Your task to perform on an android device: open device folders in google photos Image 0: 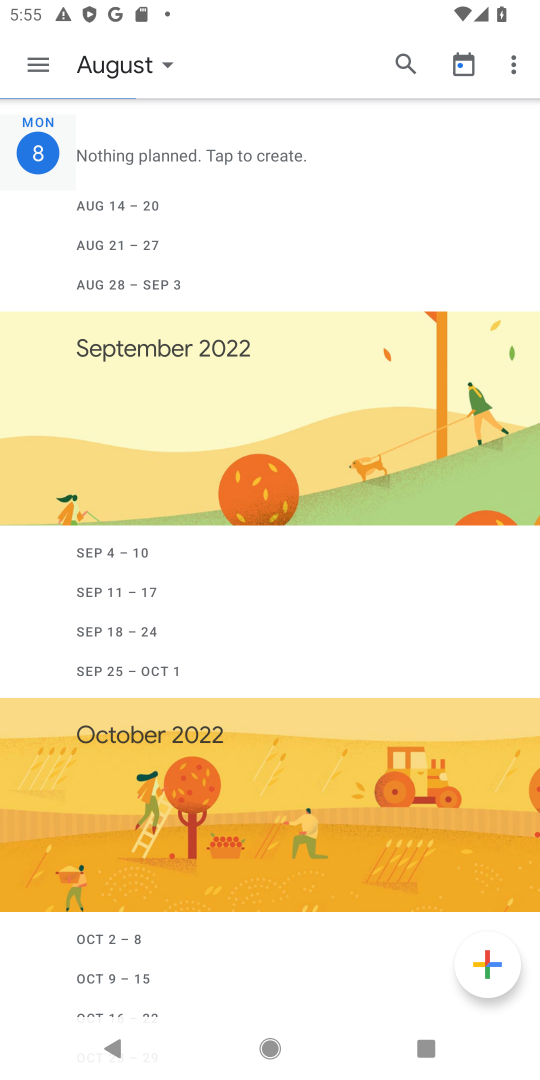
Step 0: press home button
Your task to perform on an android device: open device folders in google photos Image 1: 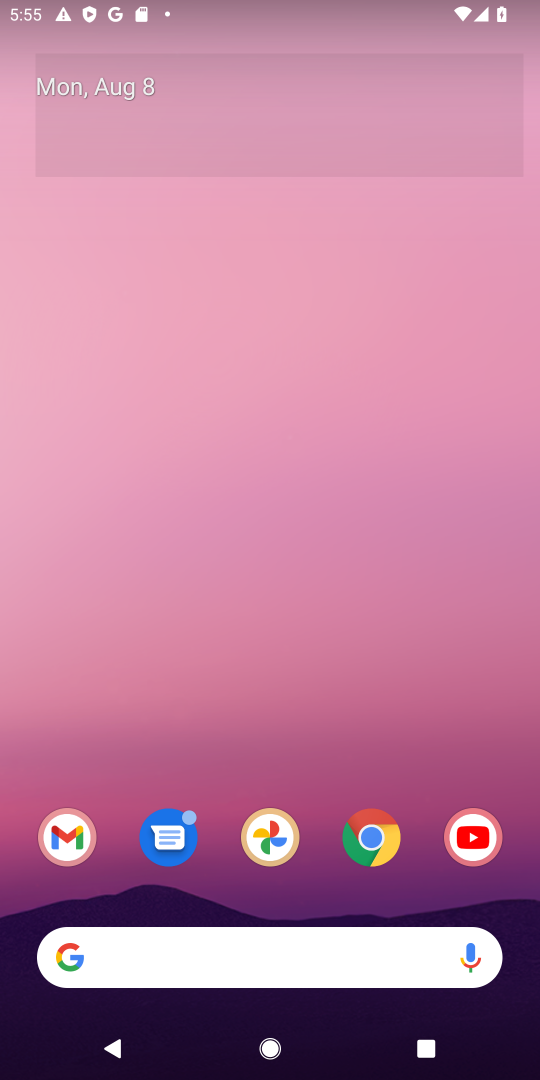
Step 1: drag from (353, 912) to (503, 1)
Your task to perform on an android device: open device folders in google photos Image 2: 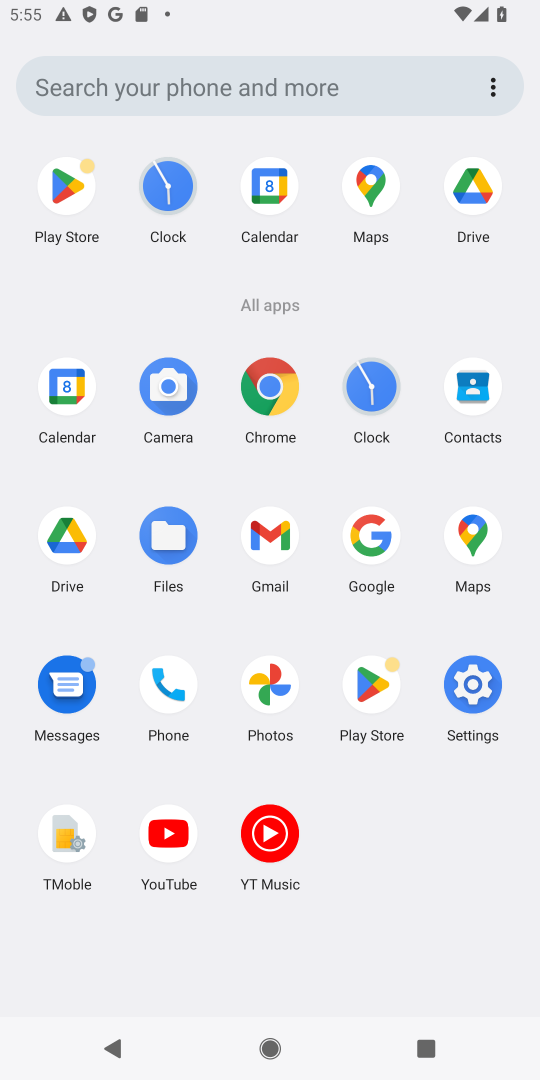
Step 2: click (287, 665)
Your task to perform on an android device: open device folders in google photos Image 3: 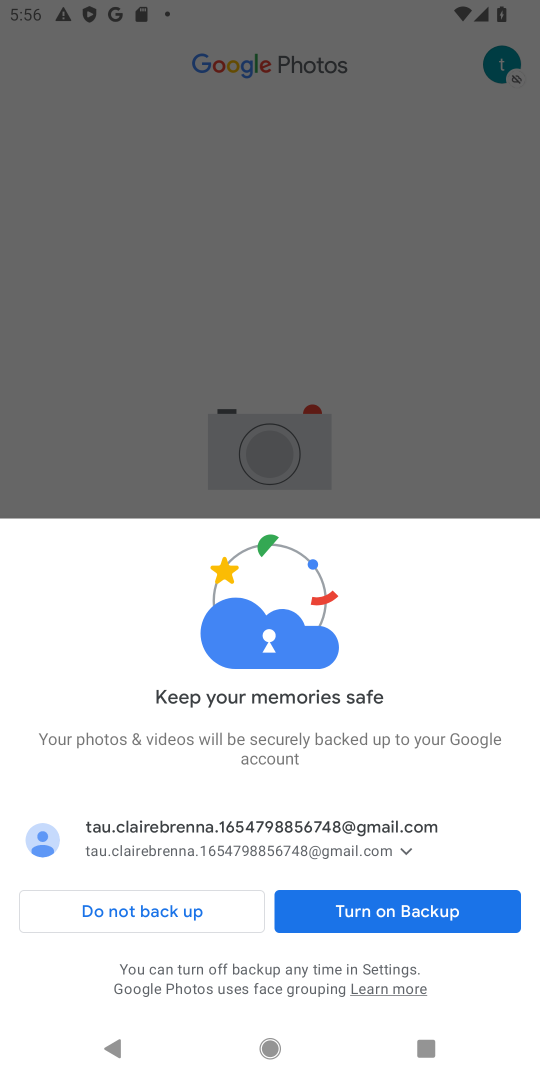
Step 3: click (445, 913)
Your task to perform on an android device: open device folders in google photos Image 4: 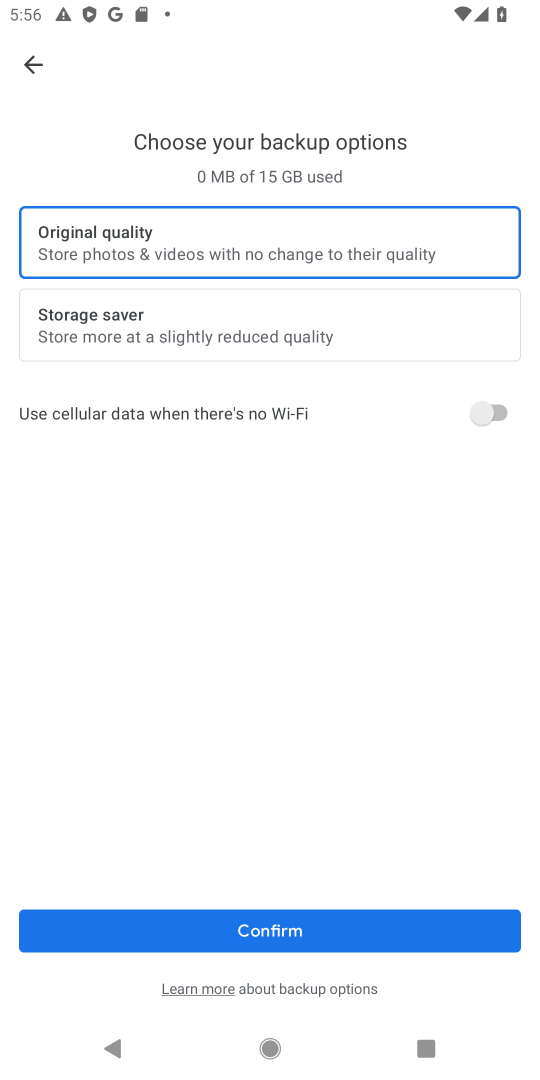
Step 4: click (443, 915)
Your task to perform on an android device: open device folders in google photos Image 5: 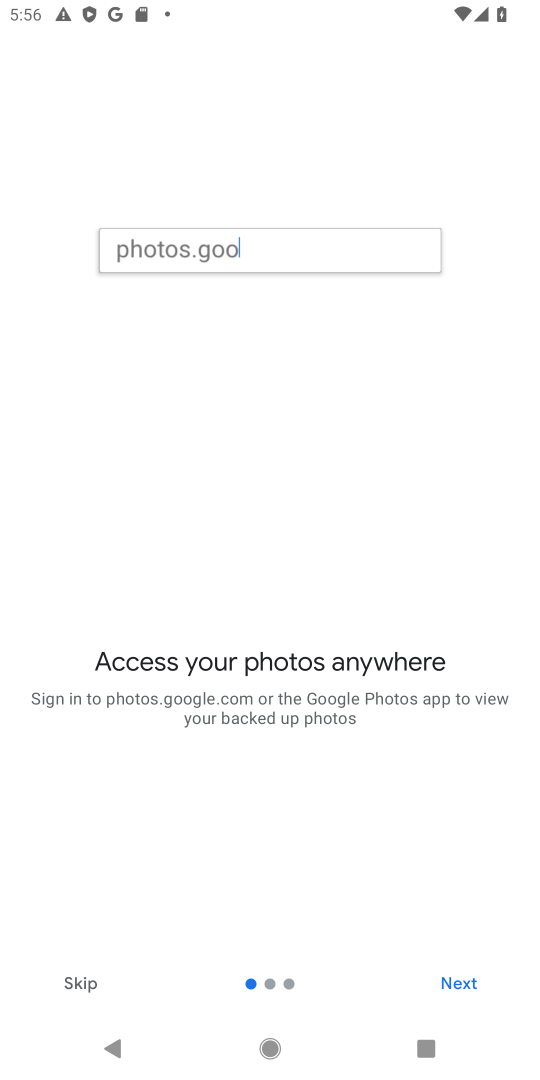
Step 5: click (479, 1004)
Your task to perform on an android device: open device folders in google photos Image 6: 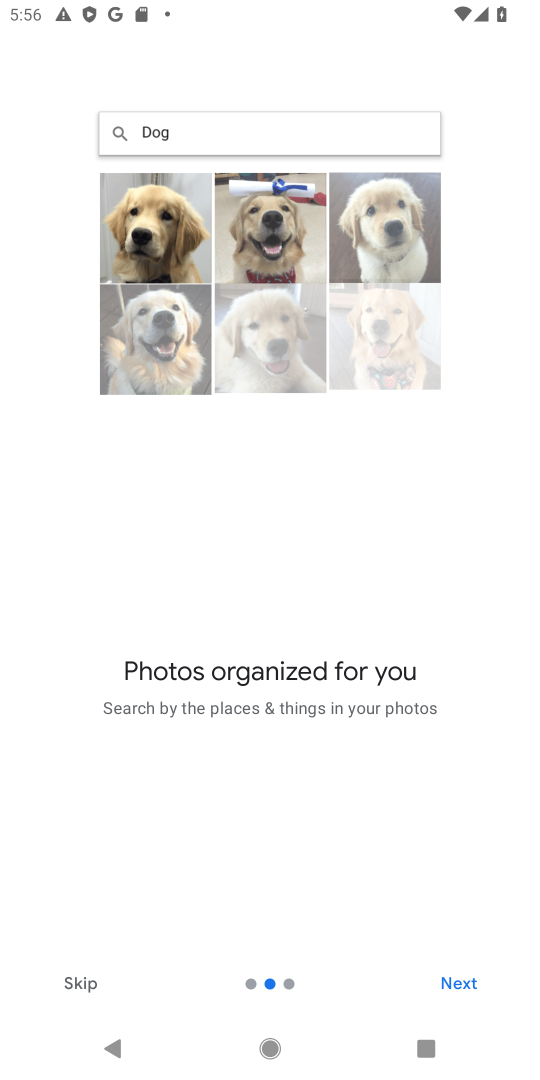
Step 6: click (435, 987)
Your task to perform on an android device: open device folders in google photos Image 7: 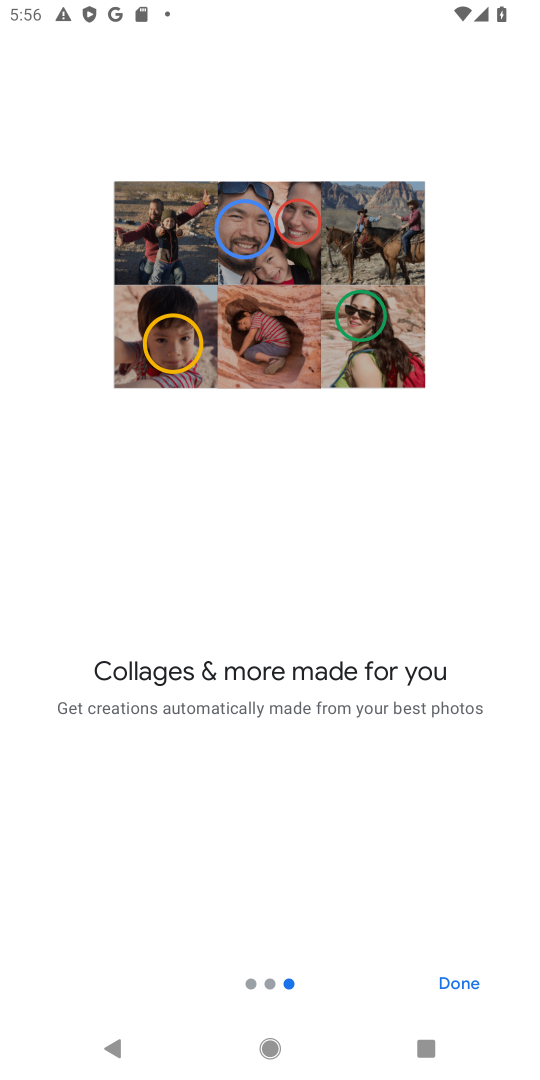
Step 7: click (435, 990)
Your task to perform on an android device: open device folders in google photos Image 8: 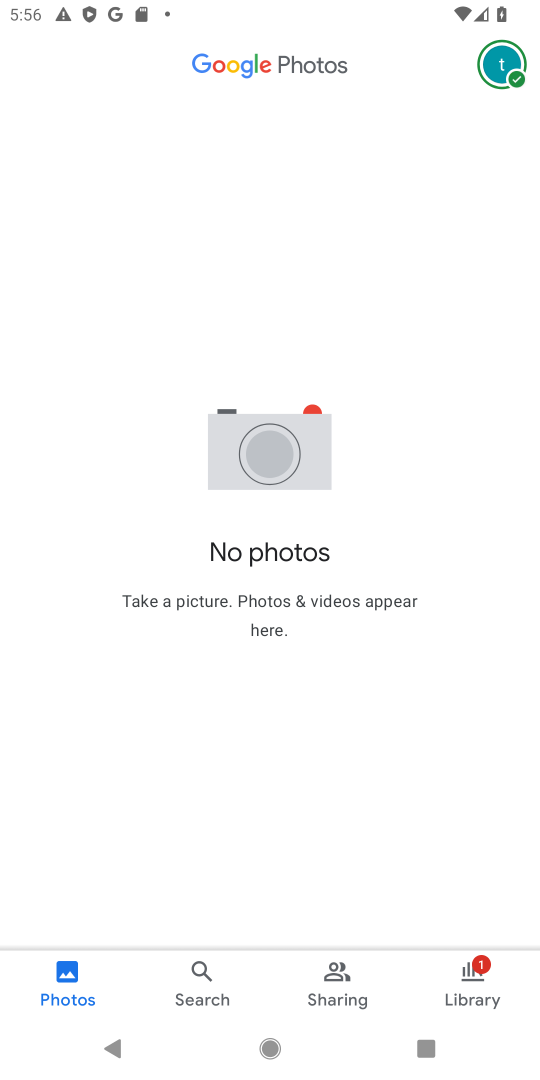
Step 8: click (535, 59)
Your task to perform on an android device: open device folders in google photos Image 9: 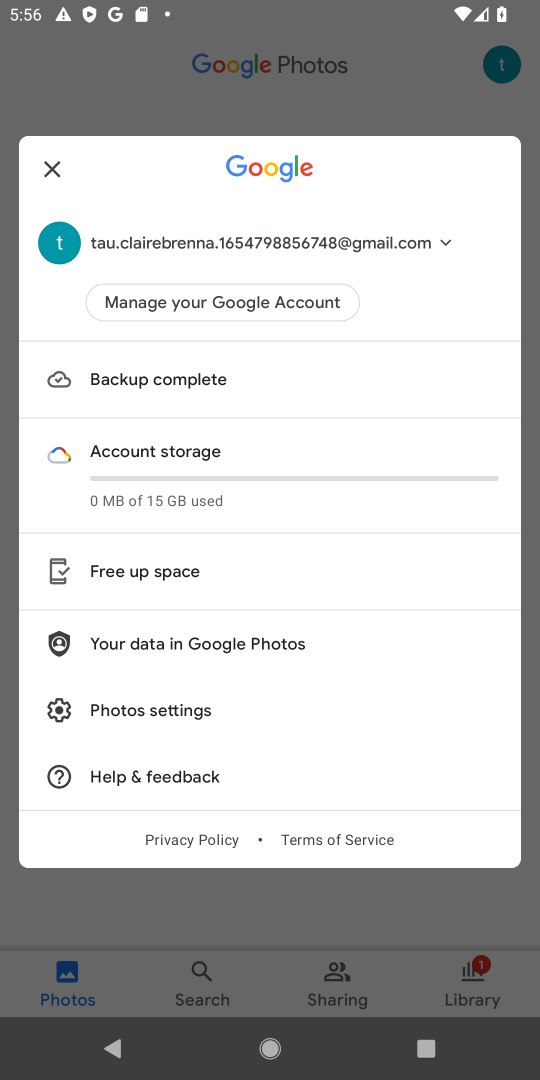
Step 9: task complete